Your task to perform on an android device: Go to network settings Image 0: 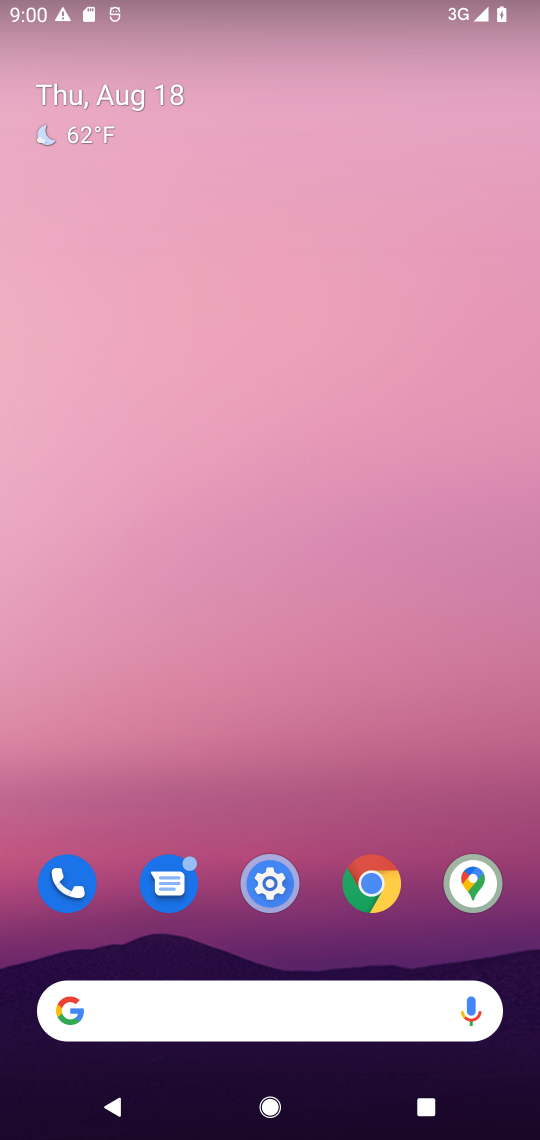
Step 0: click (300, 890)
Your task to perform on an android device: Go to network settings Image 1: 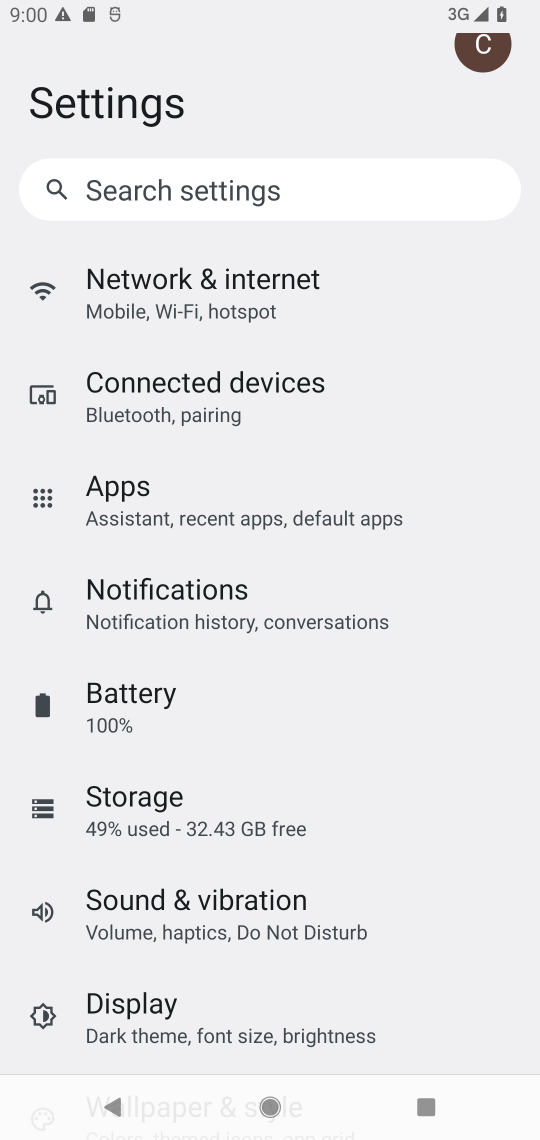
Step 1: click (209, 269)
Your task to perform on an android device: Go to network settings Image 2: 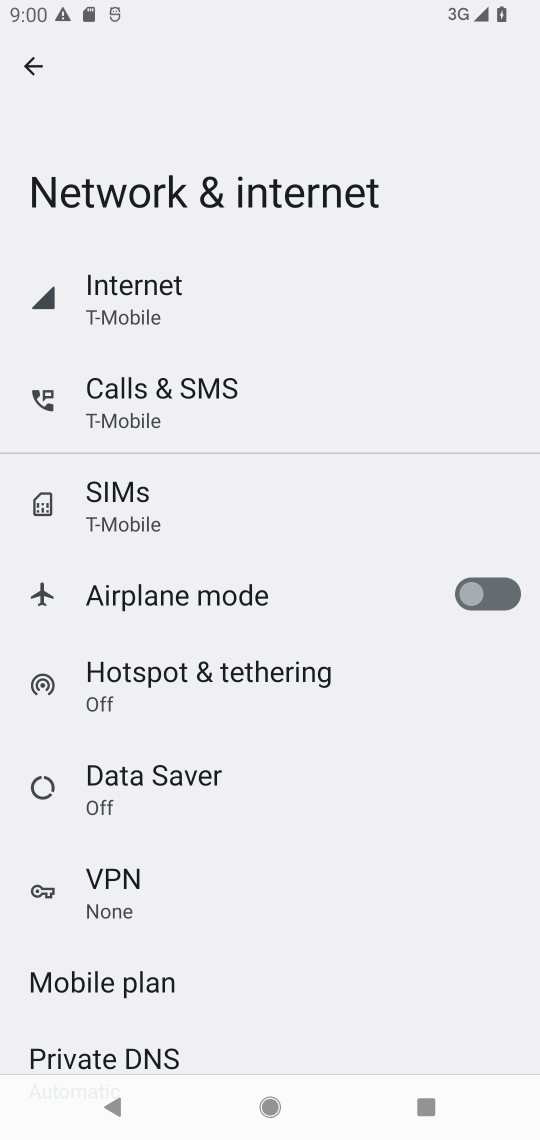
Step 2: click (185, 295)
Your task to perform on an android device: Go to network settings Image 3: 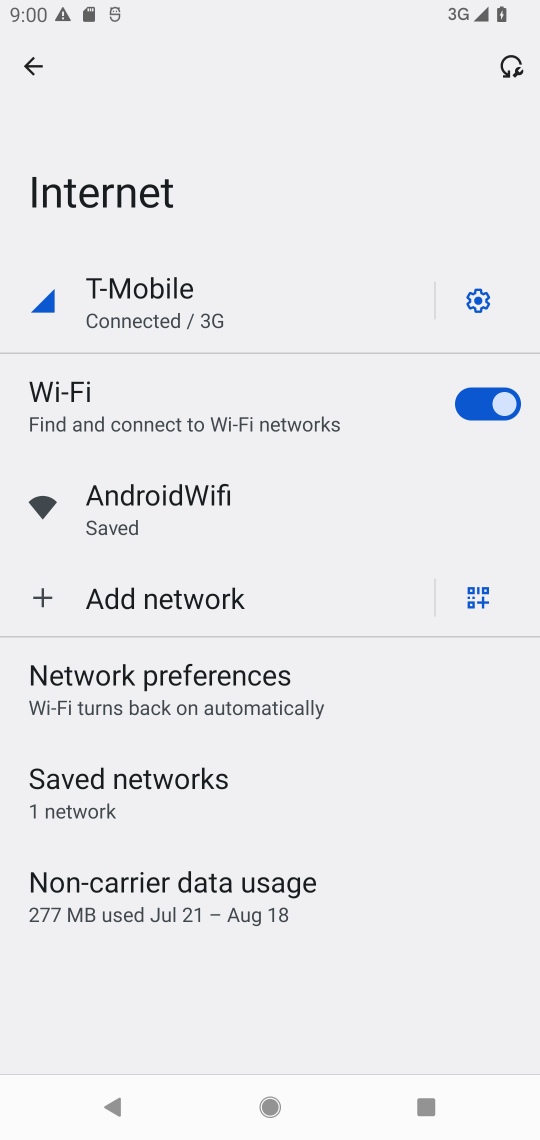
Step 3: task complete